Your task to perform on an android device: Install the CNN app Image 0: 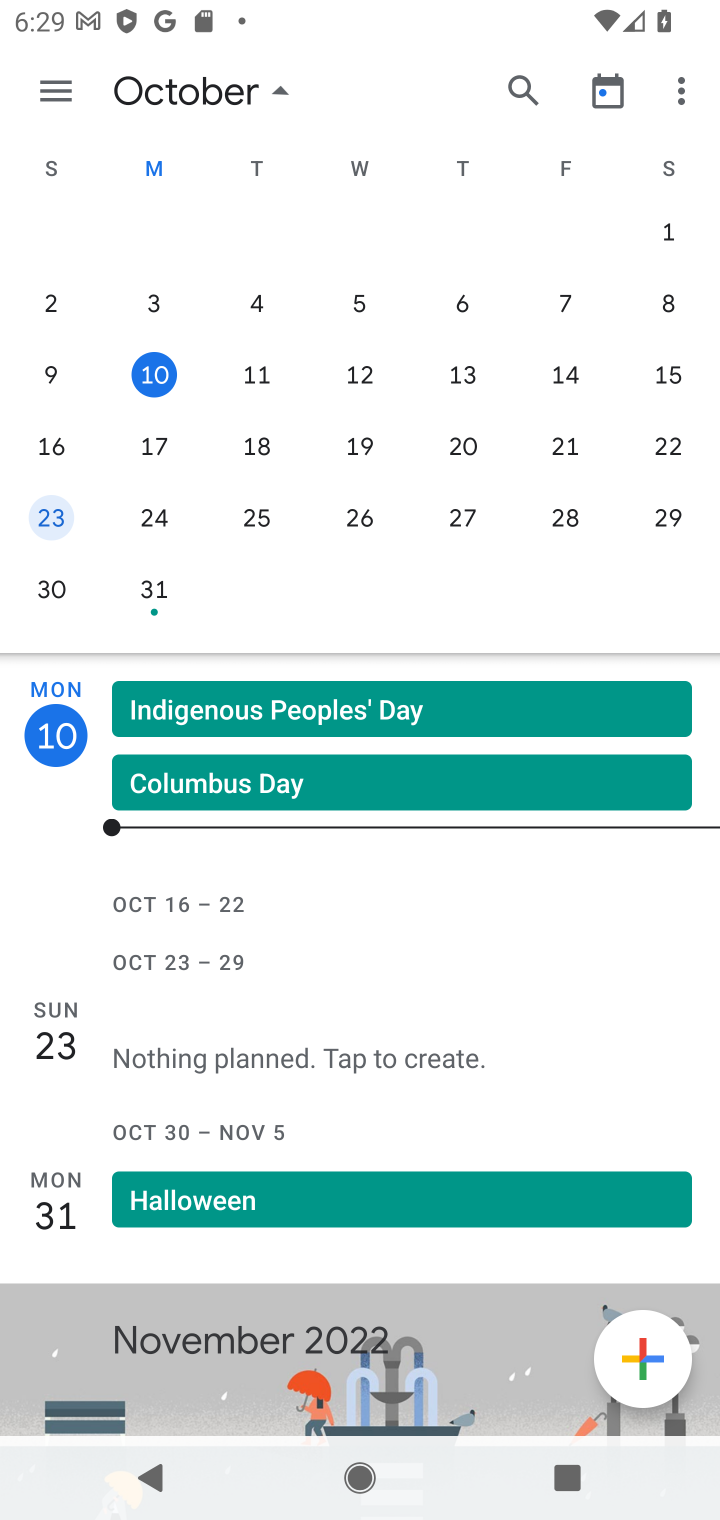
Step 0: press home button
Your task to perform on an android device: Install the CNN app Image 1: 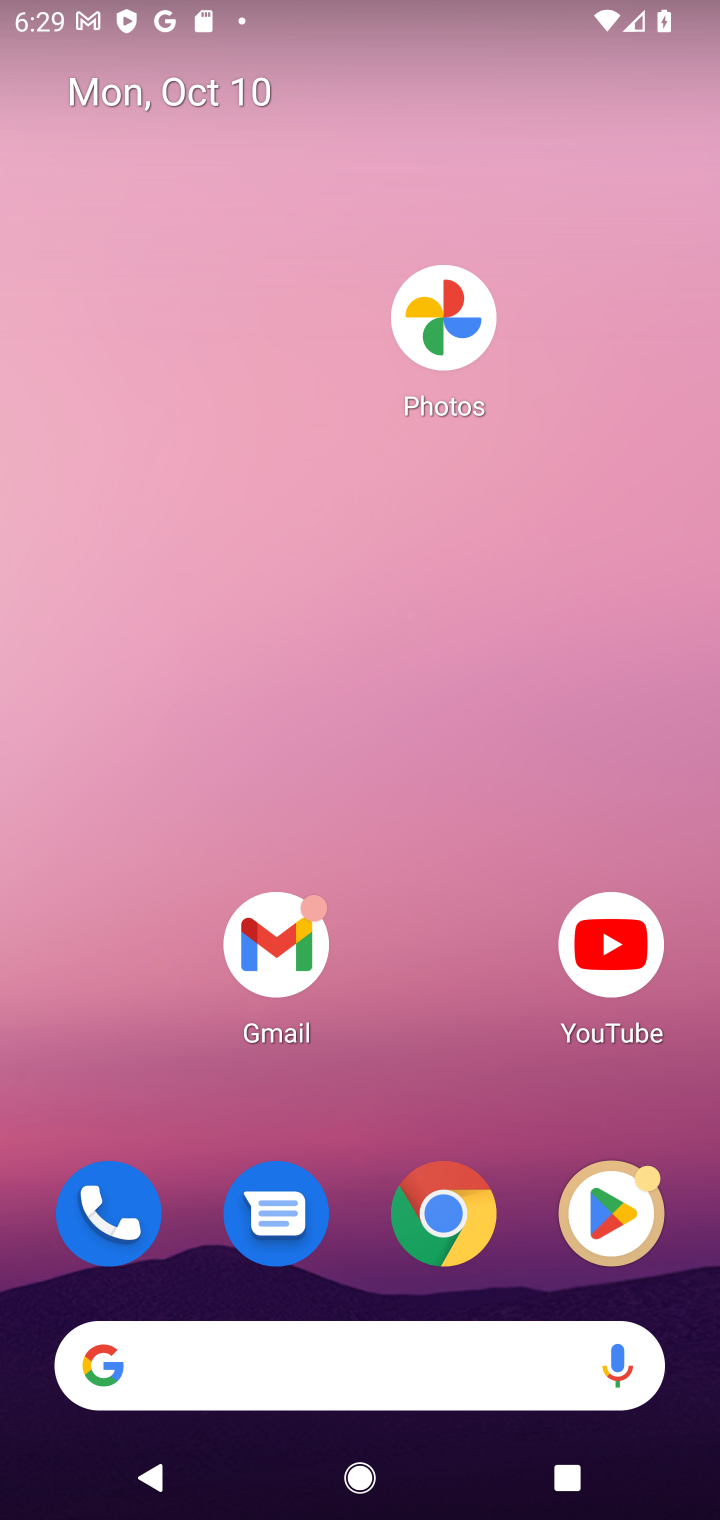
Step 1: click (580, 1237)
Your task to perform on an android device: Install the CNN app Image 2: 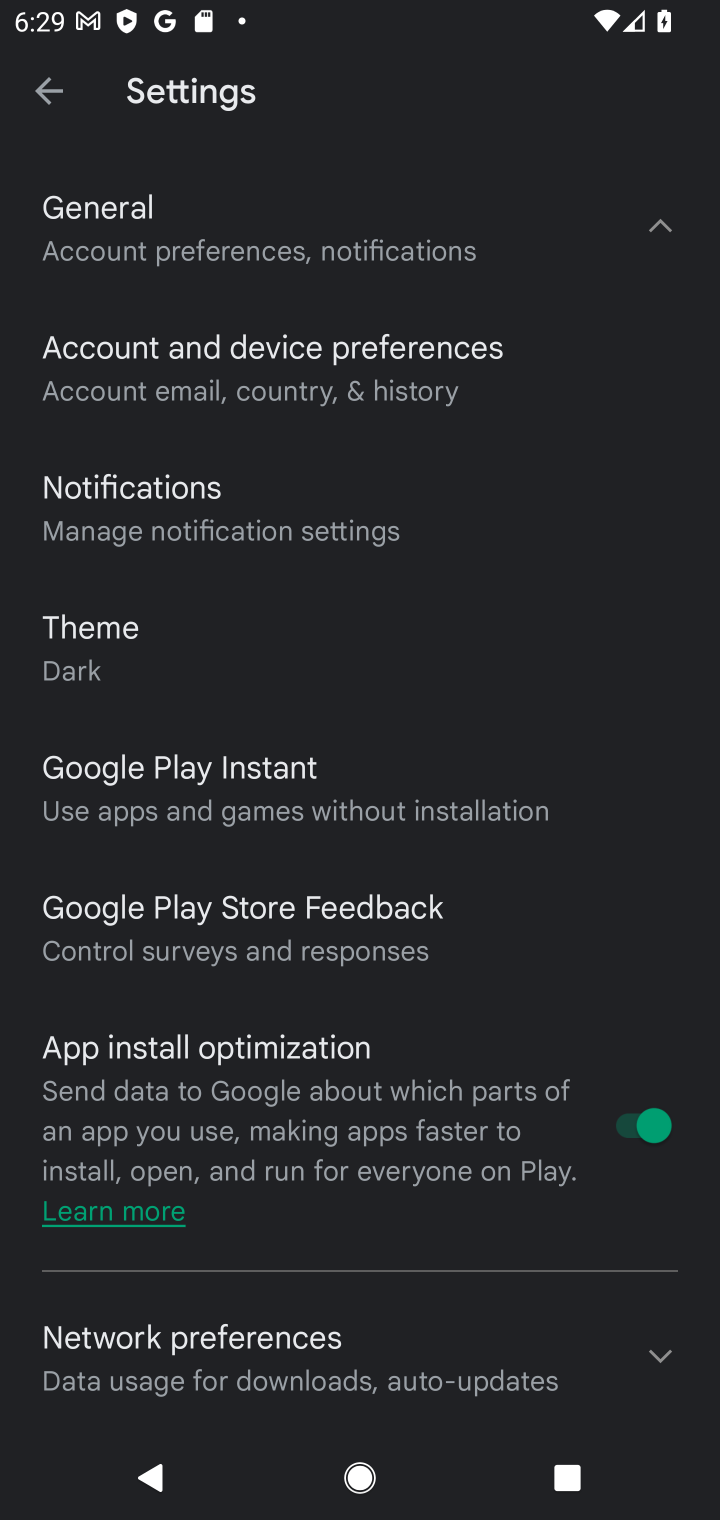
Step 2: click (33, 81)
Your task to perform on an android device: Install the CNN app Image 3: 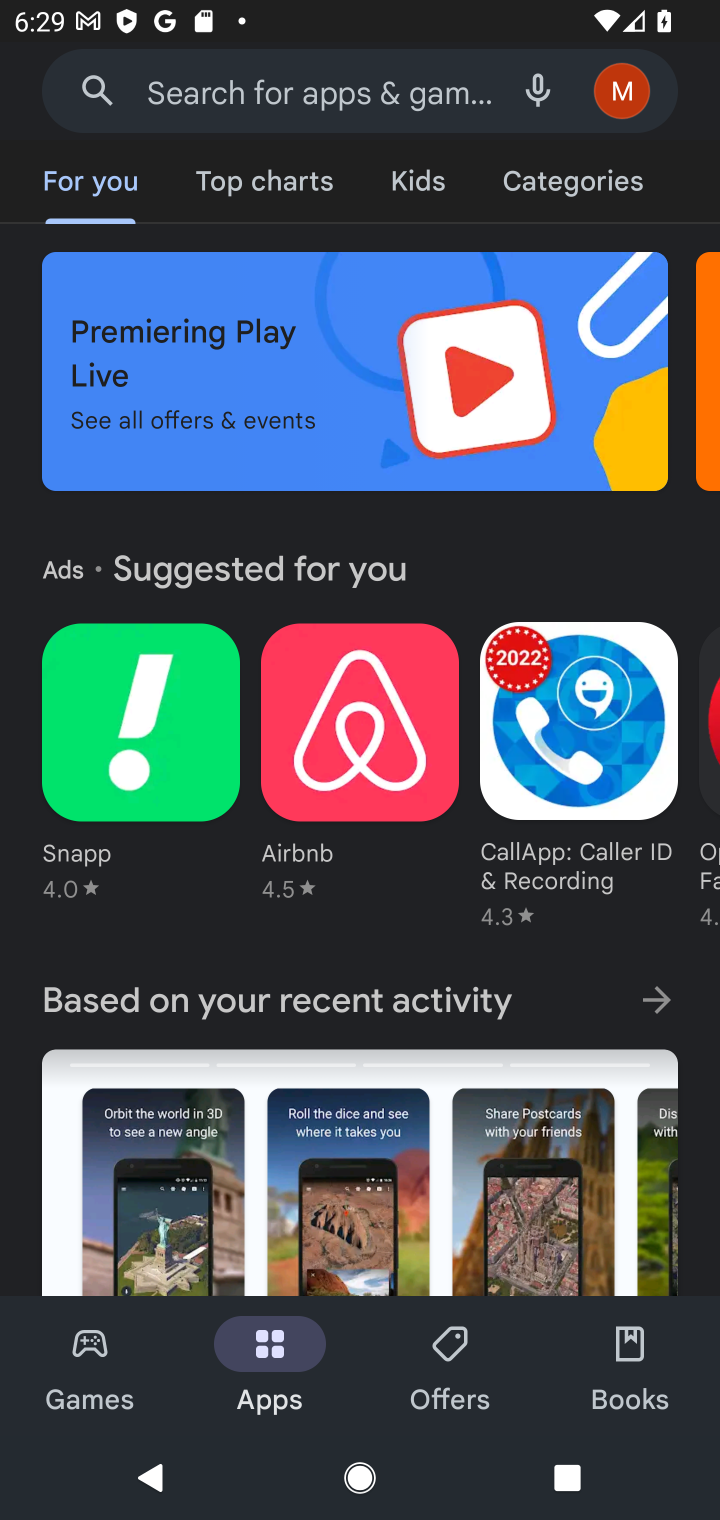
Step 3: click (151, 87)
Your task to perform on an android device: Install the CNN app Image 4: 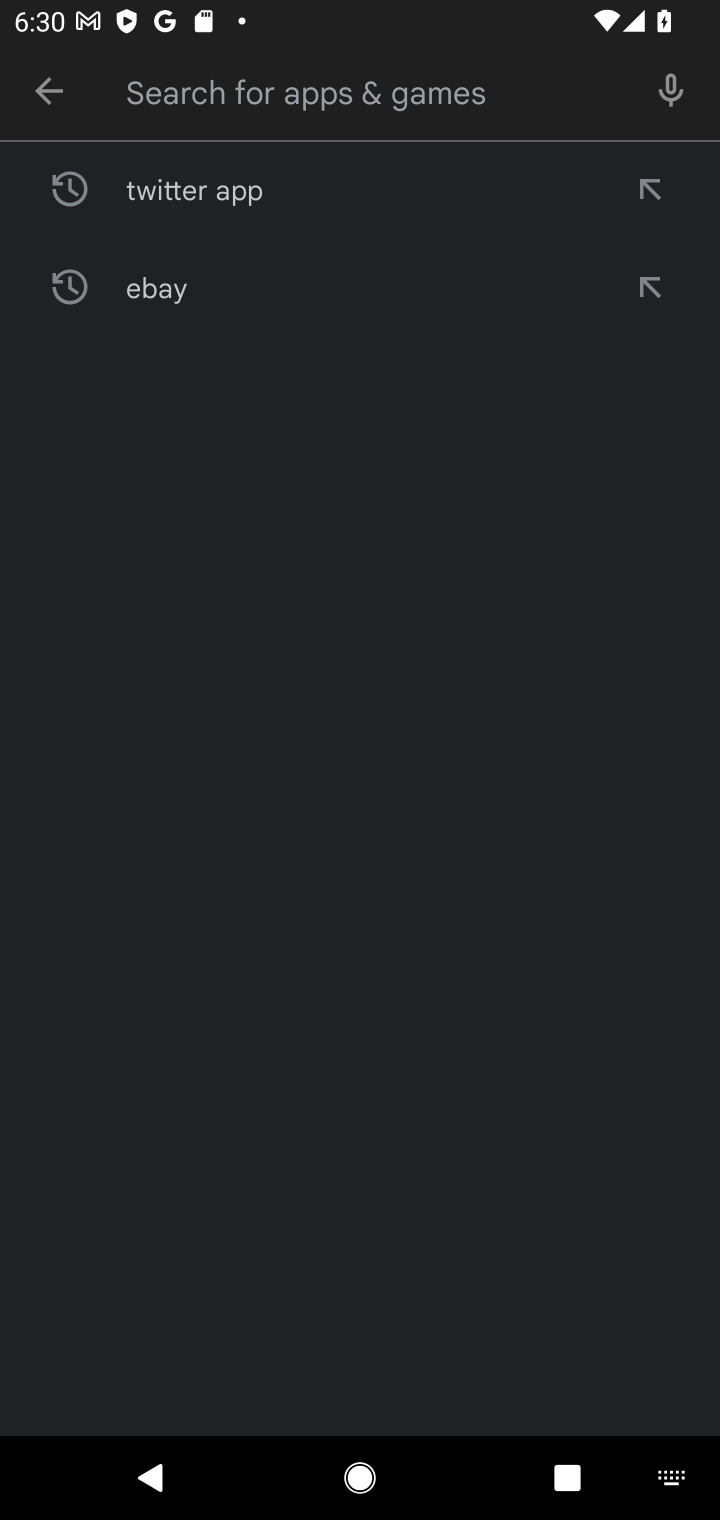
Step 4: type "CNN"
Your task to perform on an android device: Install the CNN app Image 5: 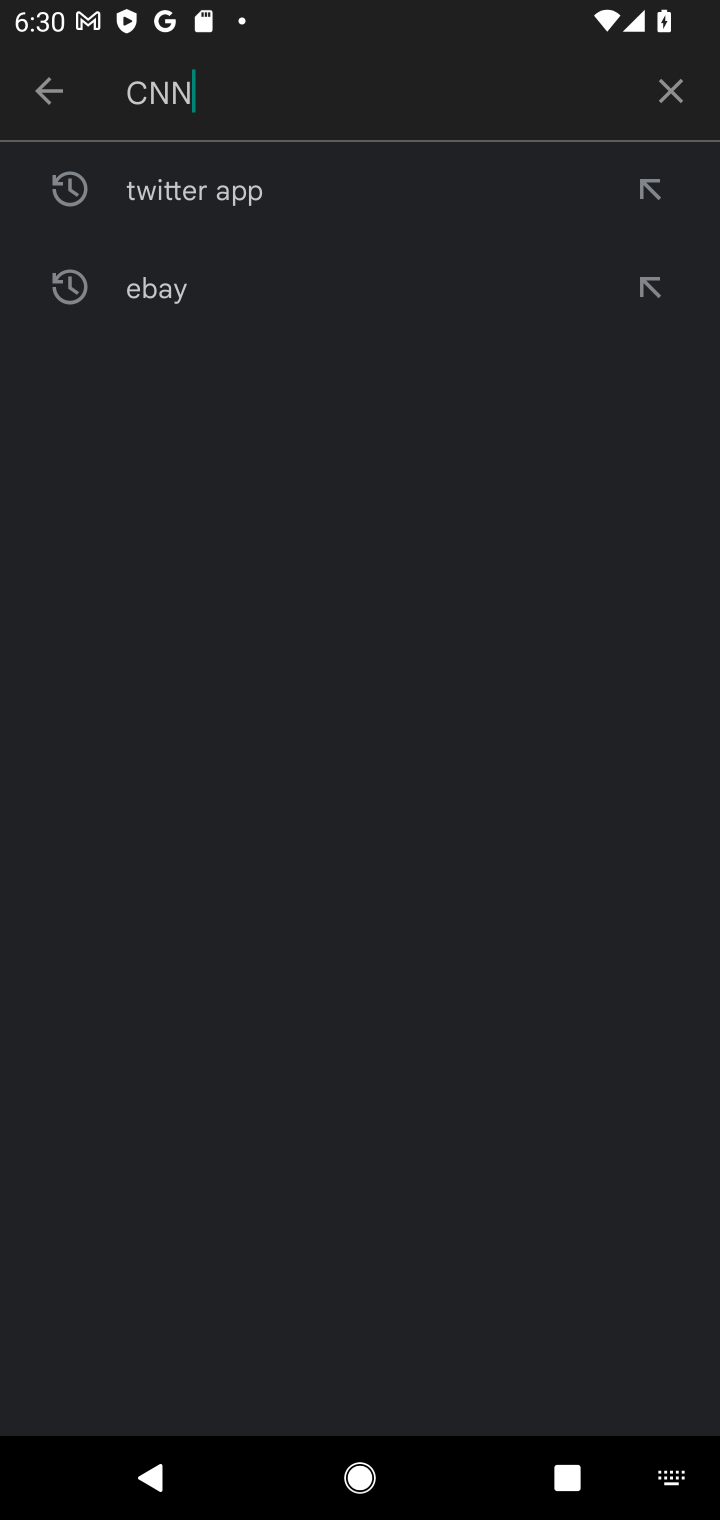
Step 5: type ""
Your task to perform on an android device: Install the CNN app Image 6: 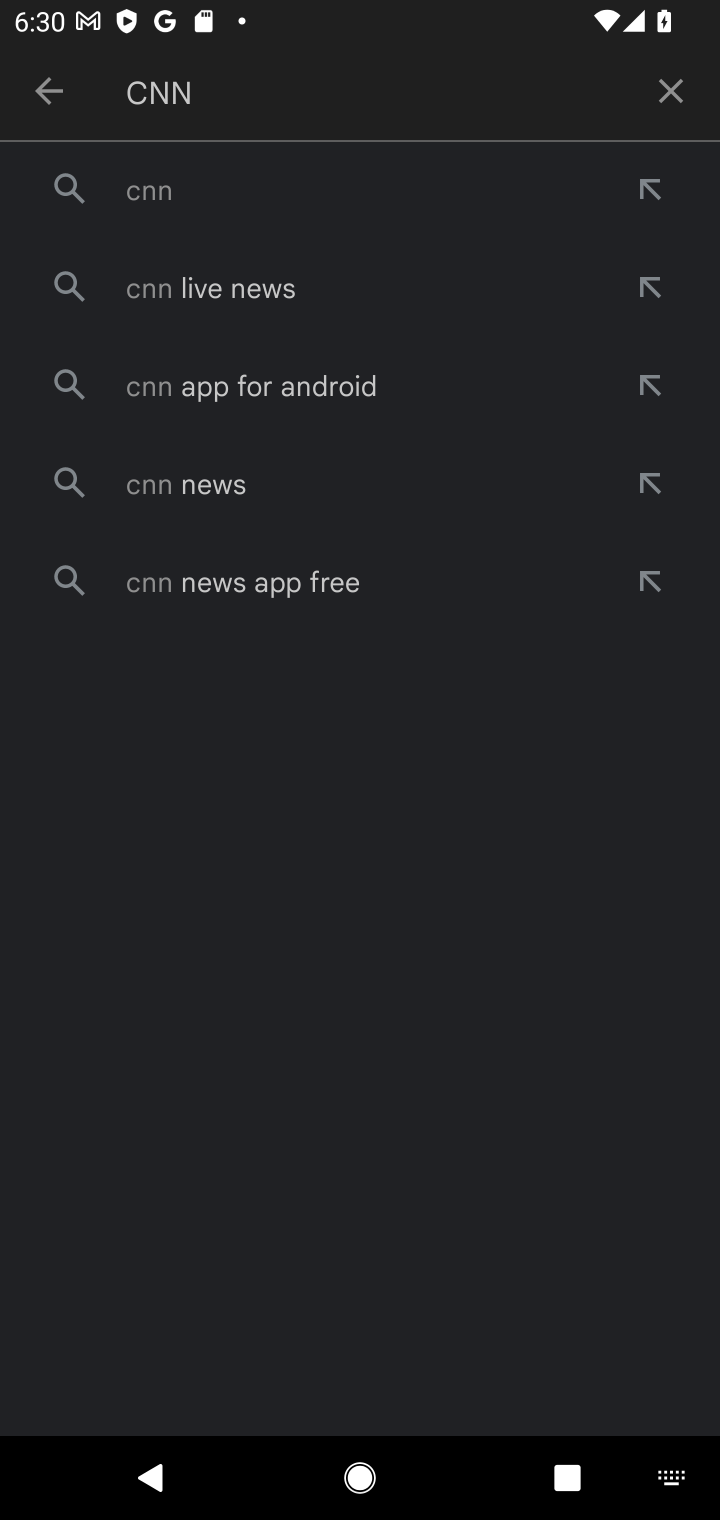
Step 6: click (299, 197)
Your task to perform on an android device: Install the CNN app Image 7: 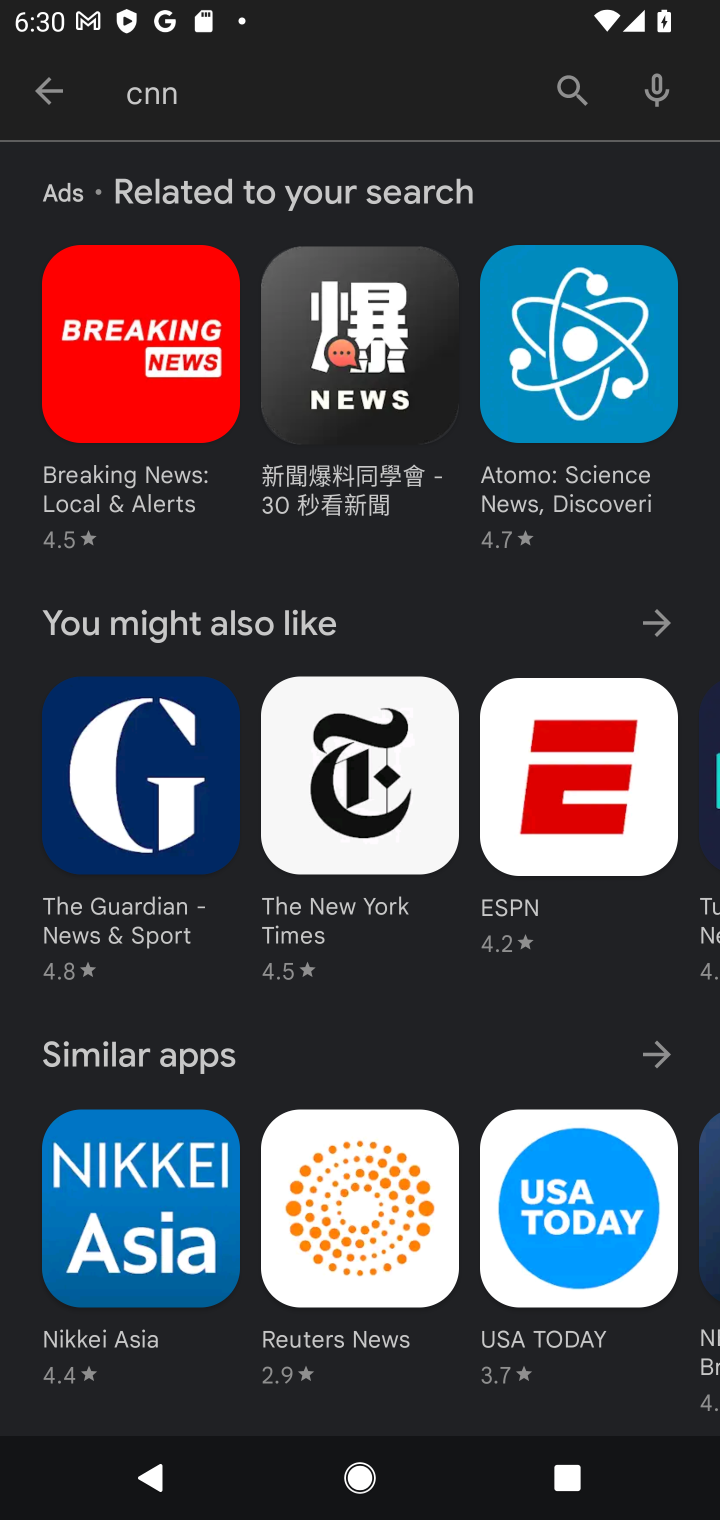
Step 7: drag from (417, 598) to (397, 185)
Your task to perform on an android device: Install the CNN app Image 8: 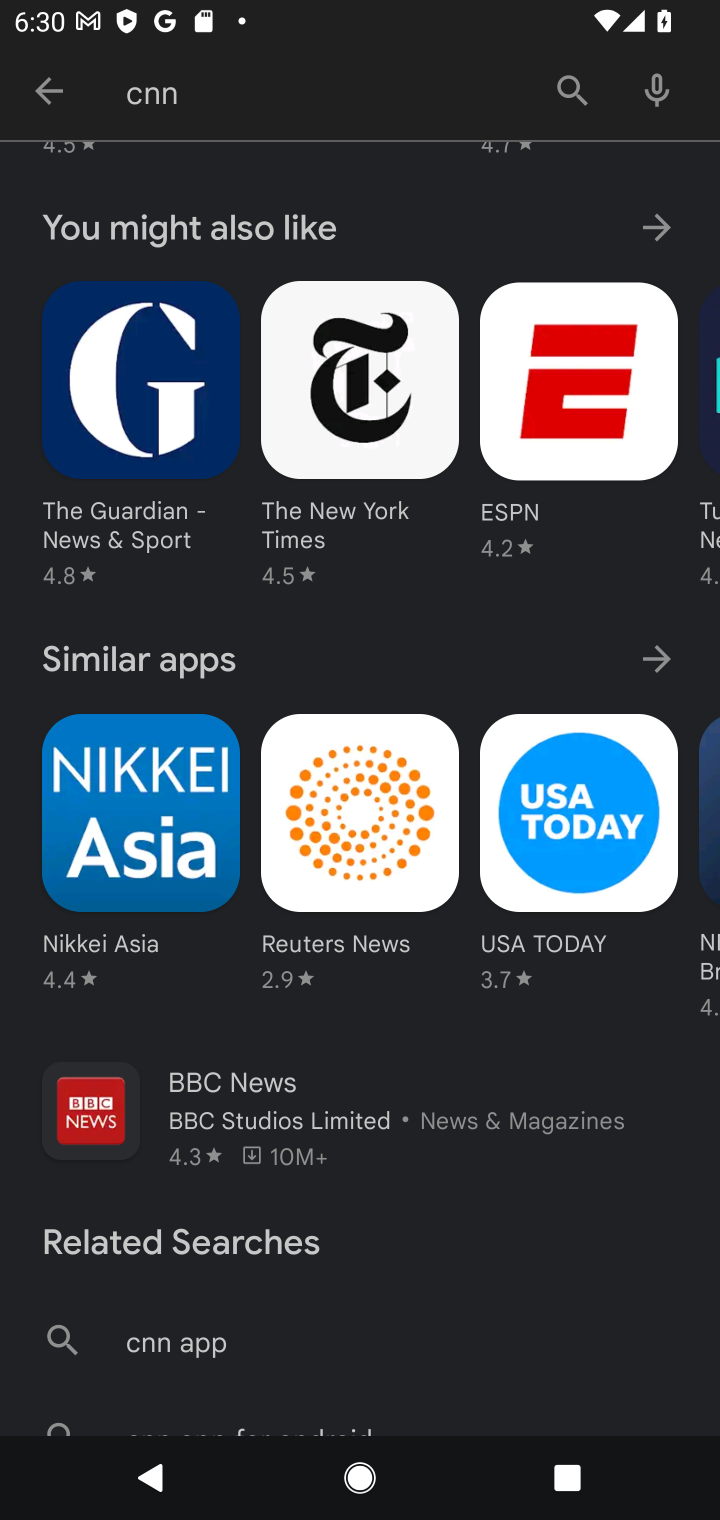
Step 8: drag from (283, 1047) to (339, 542)
Your task to perform on an android device: Install the CNN app Image 9: 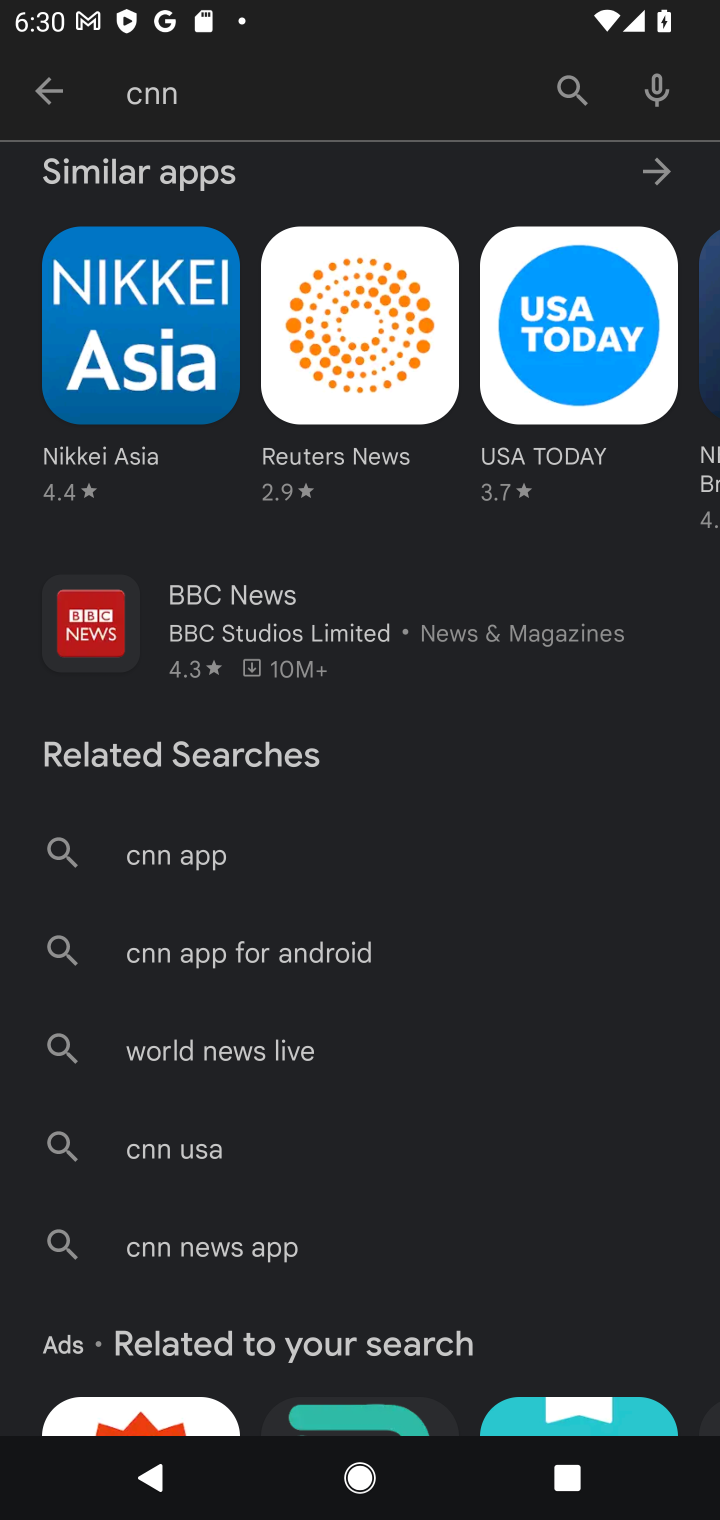
Step 9: click (251, 866)
Your task to perform on an android device: Install the CNN app Image 10: 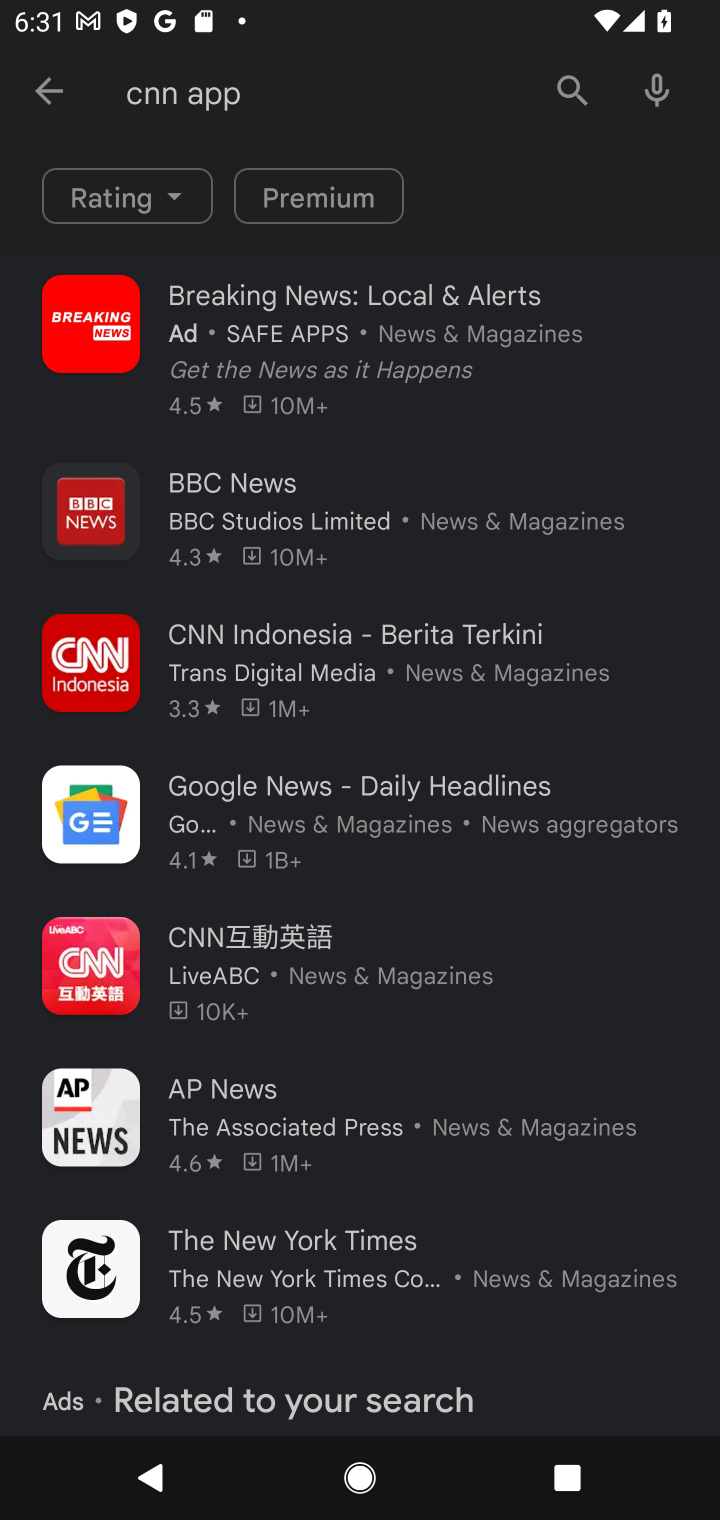
Step 10: click (284, 678)
Your task to perform on an android device: Install the CNN app Image 11: 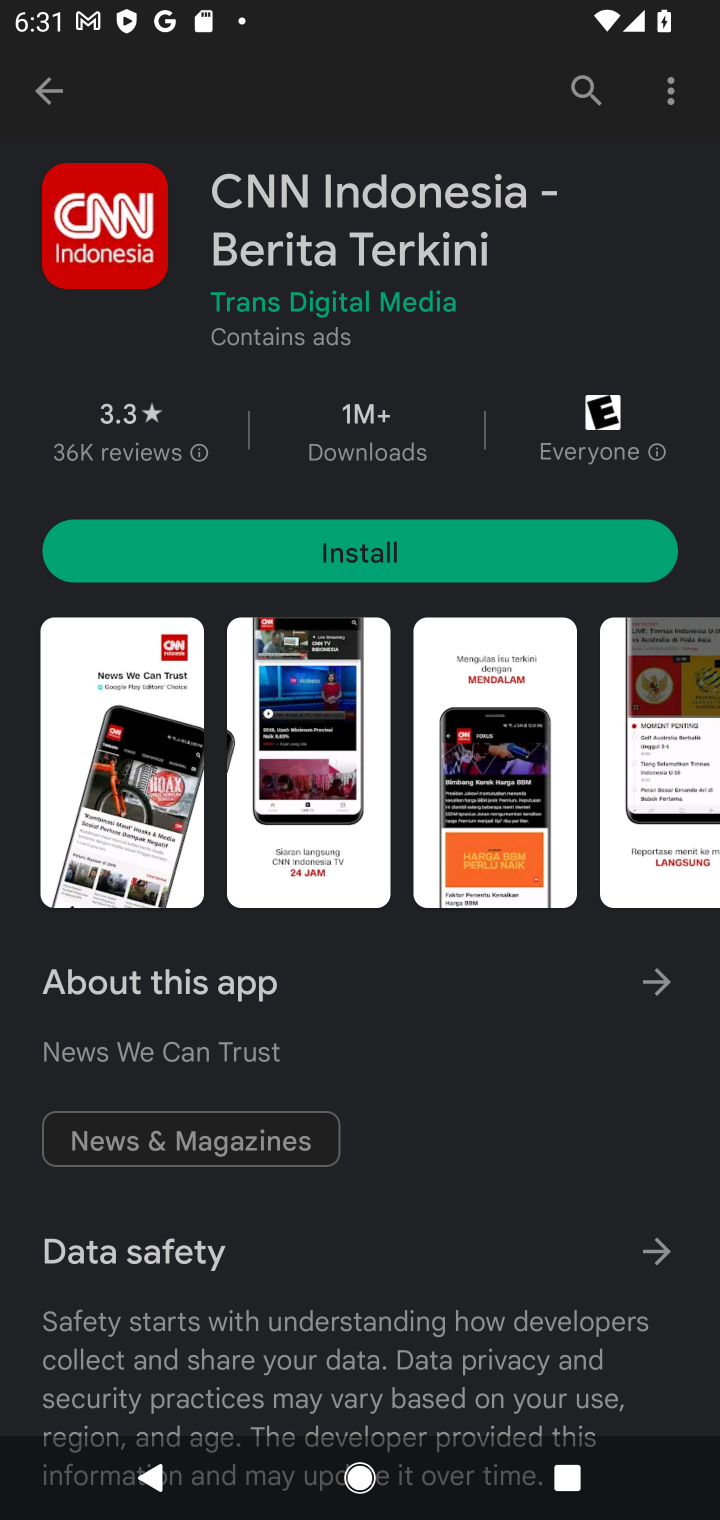
Step 11: click (401, 531)
Your task to perform on an android device: Install the CNN app Image 12: 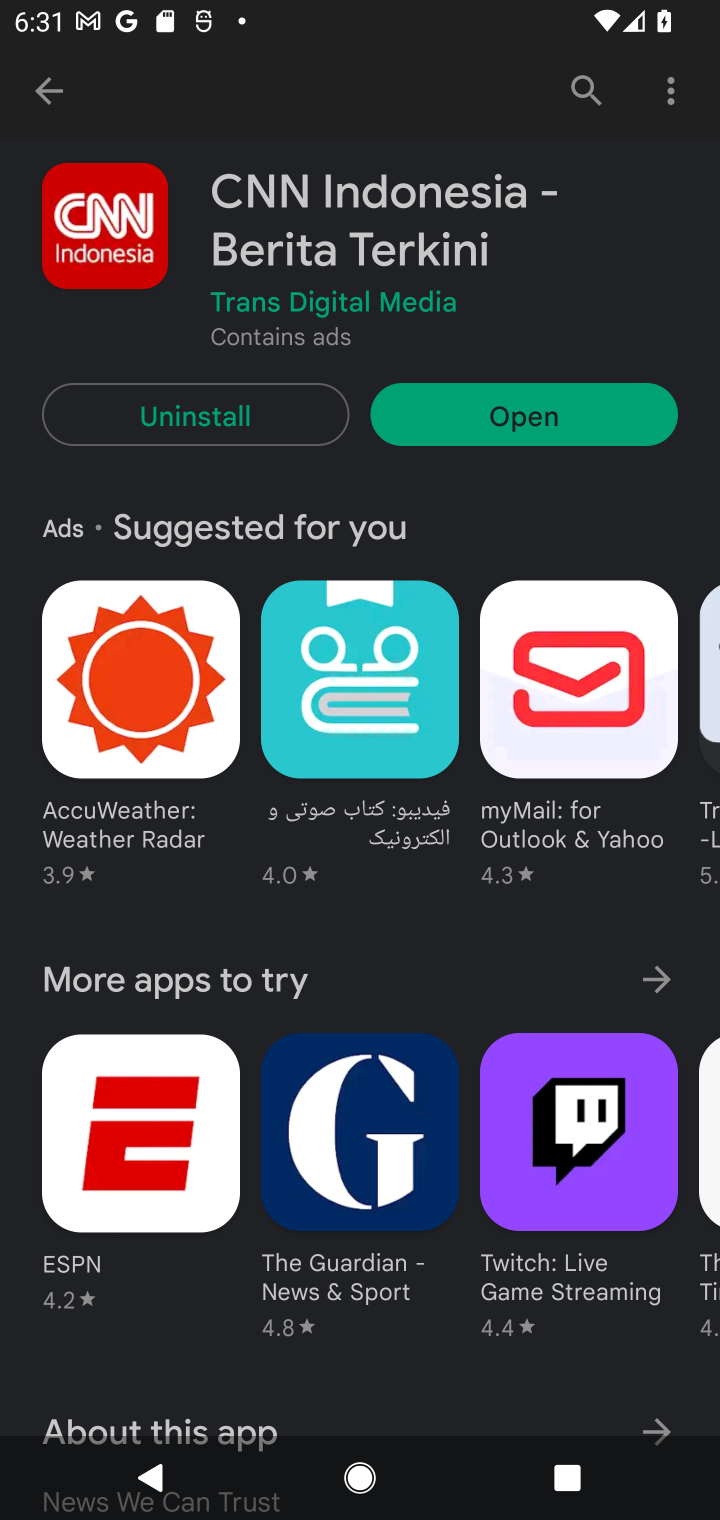
Step 12: task complete